Your task to perform on an android device: add a contact in the contacts app Image 0: 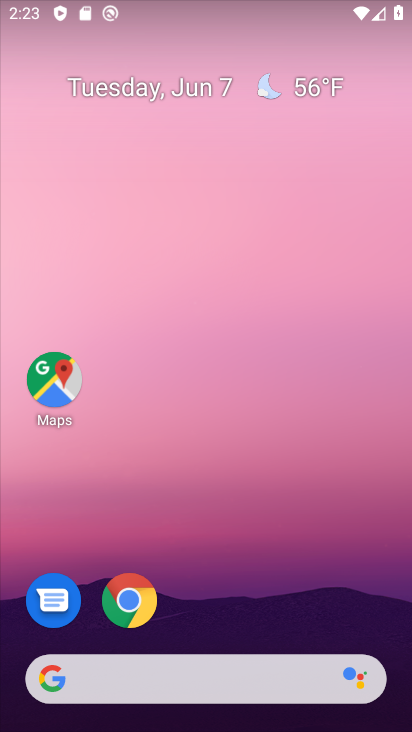
Step 0: drag from (390, 673) to (349, 119)
Your task to perform on an android device: add a contact in the contacts app Image 1: 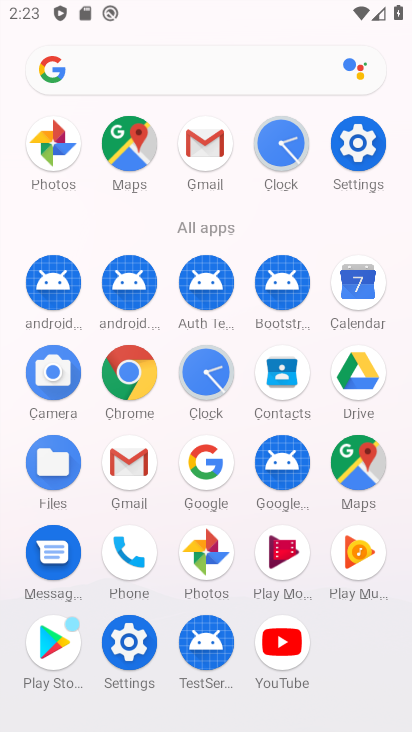
Step 1: click (275, 383)
Your task to perform on an android device: add a contact in the contacts app Image 2: 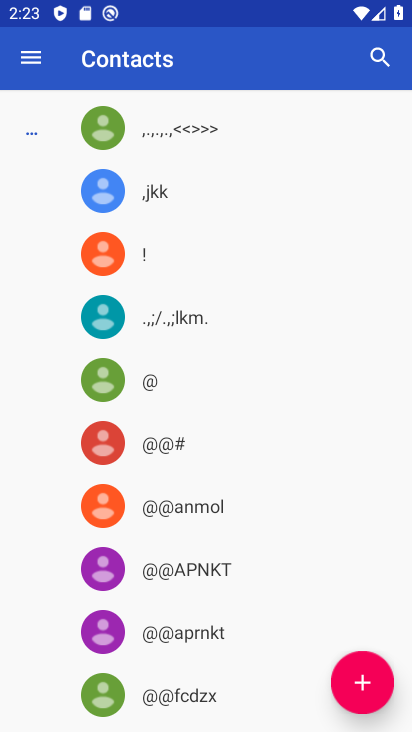
Step 2: click (364, 662)
Your task to perform on an android device: add a contact in the contacts app Image 3: 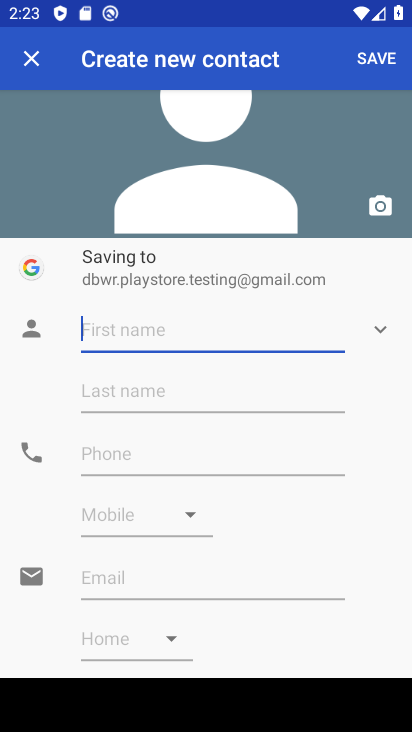
Step 3: type "rdjhtdtjhfc"
Your task to perform on an android device: add a contact in the contacts app Image 4: 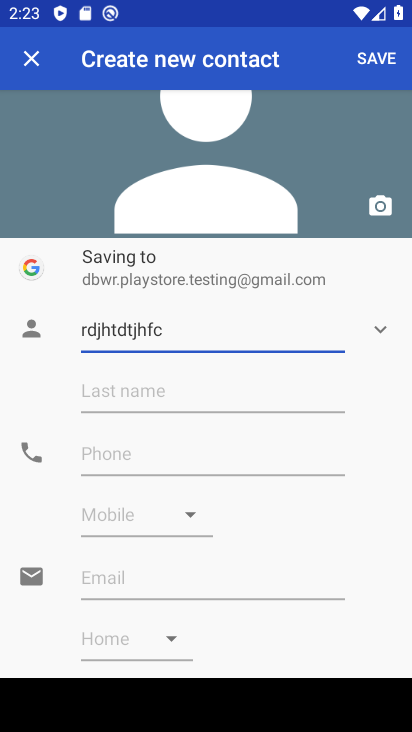
Step 4: click (221, 397)
Your task to perform on an android device: add a contact in the contacts app Image 5: 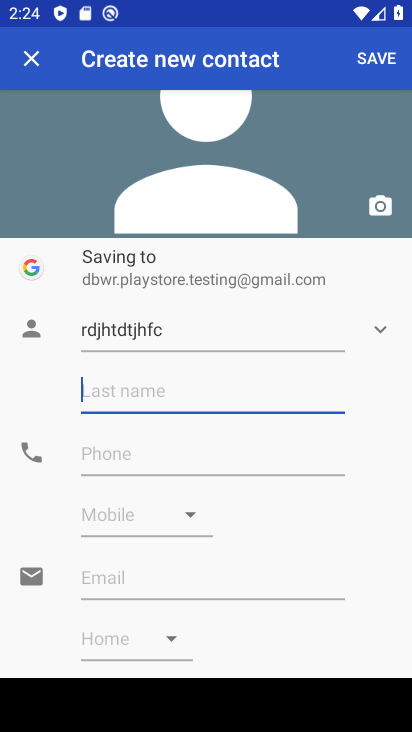
Step 5: type "cfdy tfcrjtf"
Your task to perform on an android device: add a contact in the contacts app Image 6: 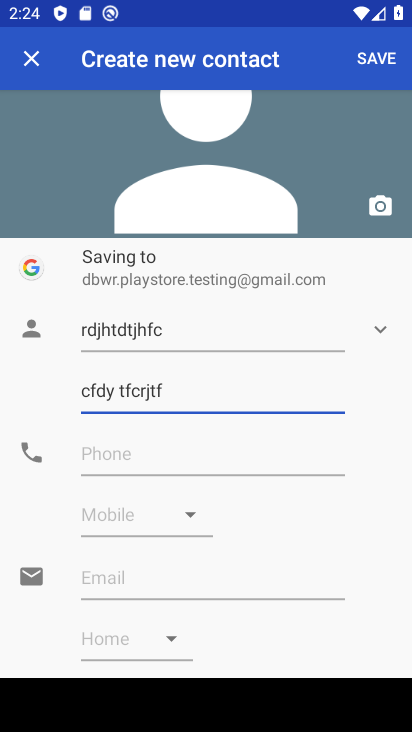
Step 6: click (142, 462)
Your task to perform on an android device: add a contact in the contacts app Image 7: 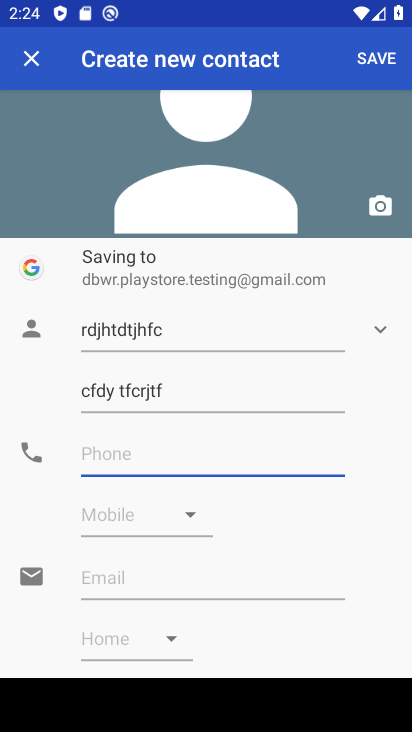
Step 7: type "564265885"
Your task to perform on an android device: add a contact in the contacts app Image 8: 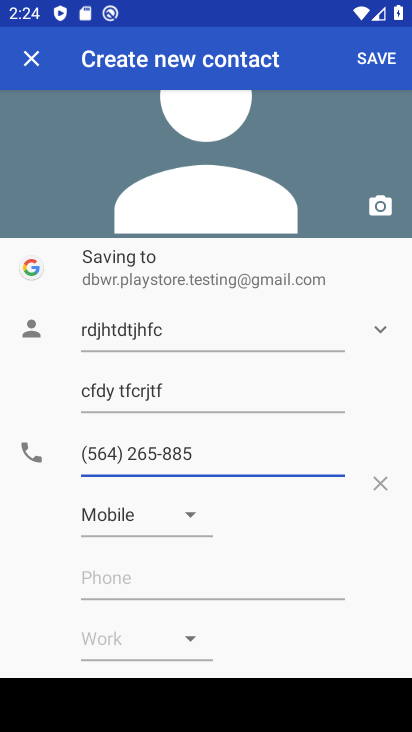
Step 8: click (371, 55)
Your task to perform on an android device: add a contact in the contacts app Image 9: 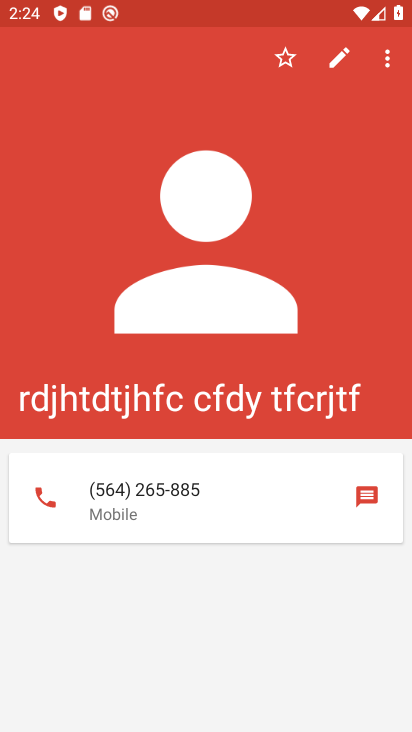
Step 9: task complete